Your task to perform on an android device: Search for pizza restaurants on Maps Image 0: 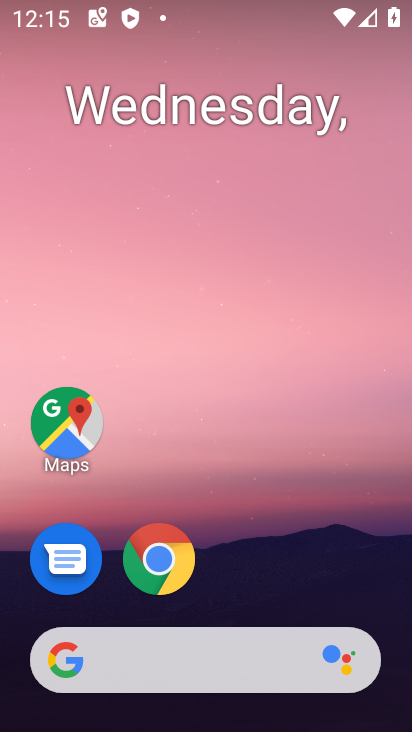
Step 0: click (50, 422)
Your task to perform on an android device: Search for pizza restaurants on Maps Image 1: 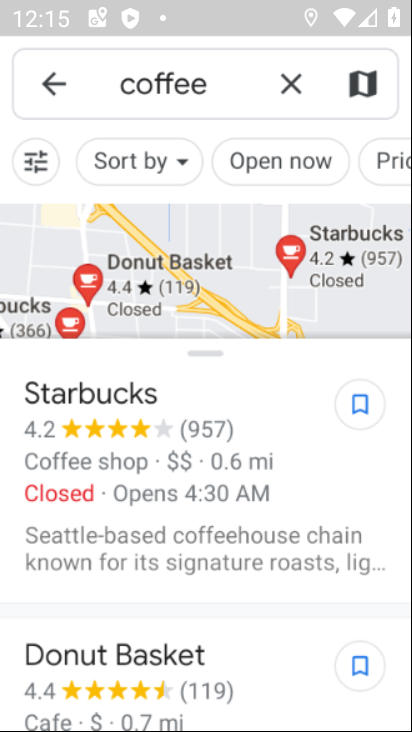
Step 1: click (289, 82)
Your task to perform on an android device: Search for pizza restaurants on Maps Image 2: 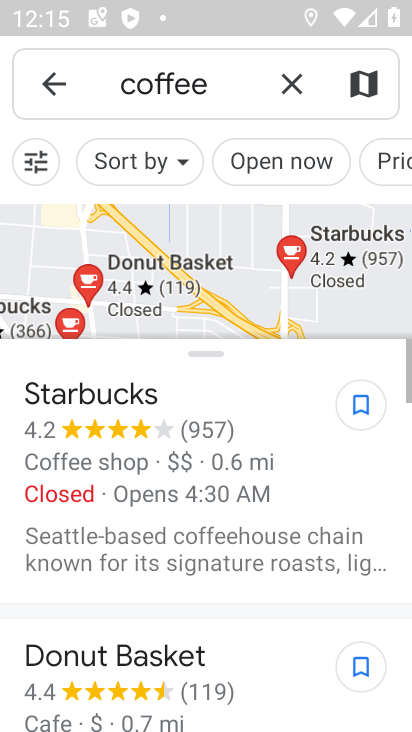
Step 2: click (296, 78)
Your task to perform on an android device: Search for pizza restaurants on Maps Image 3: 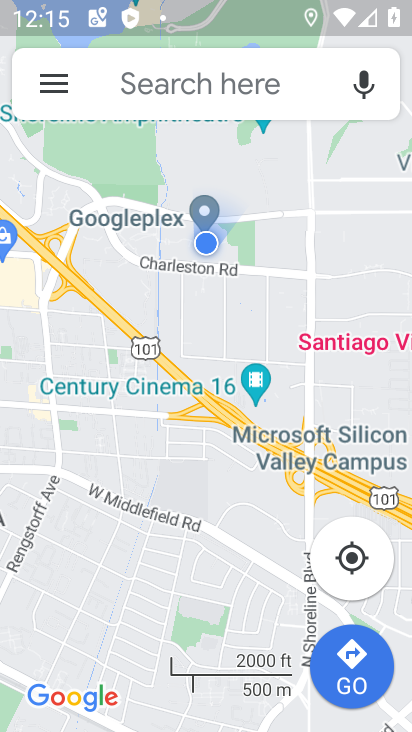
Step 3: click (195, 94)
Your task to perform on an android device: Search for pizza restaurants on Maps Image 4: 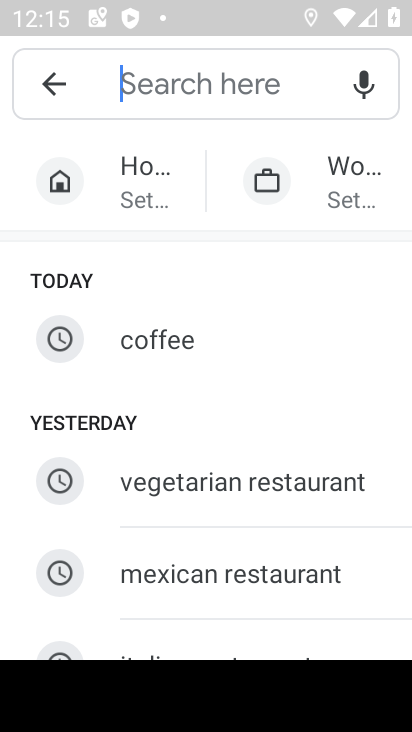
Step 4: type "pizza"
Your task to perform on an android device: Search for pizza restaurants on Maps Image 5: 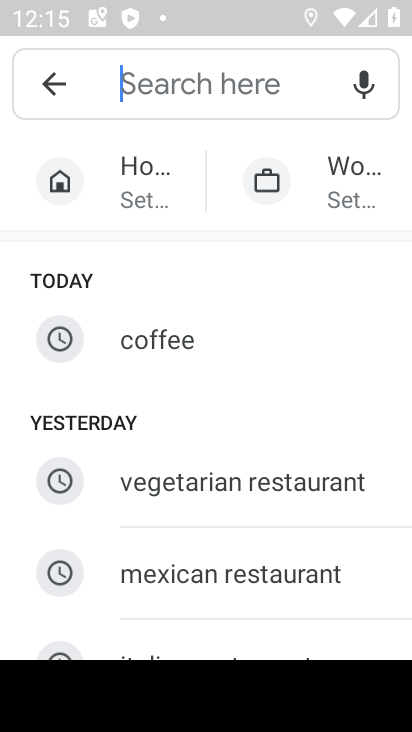
Step 5: click (200, 343)
Your task to perform on an android device: Search for pizza restaurants on Maps Image 6: 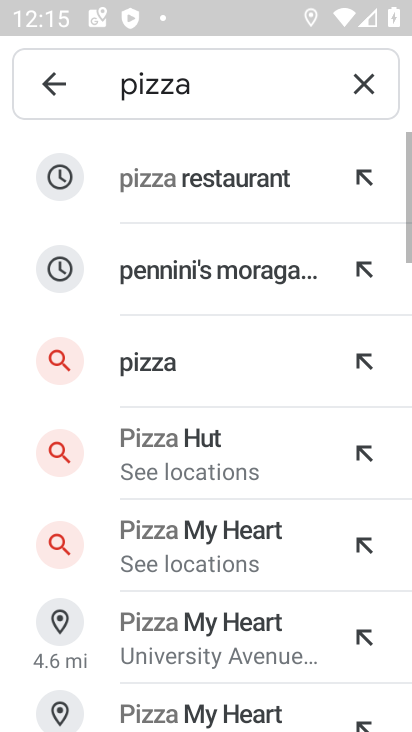
Step 6: click (180, 180)
Your task to perform on an android device: Search for pizza restaurants on Maps Image 7: 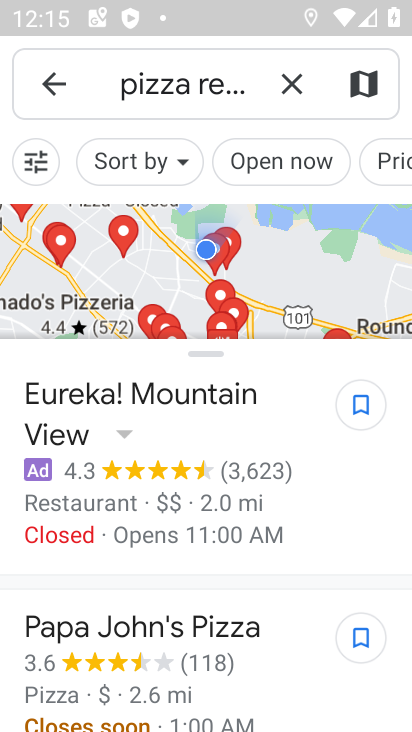
Step 7: task complete